Your task to perform on an android device: Search for Italian restaurants on Maps Image 0: 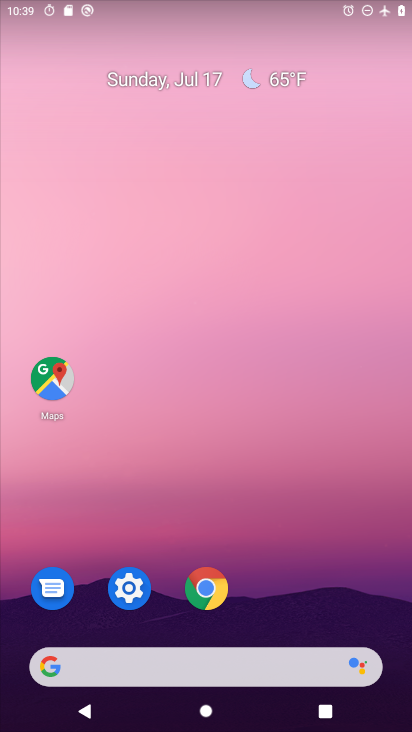
Step 0: drag from (249, 326) to (231, 211)
Your task to perform on an android device: Search for Italian restaurants on Maps Image 1: 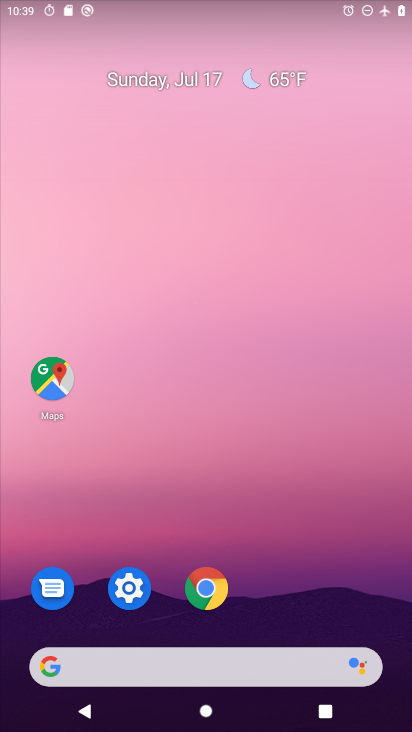
Step 1: drag from (263, 675) to (202, 429)
Your task to perform on an android device: Search for Italian restaurants on Maps Image 2: 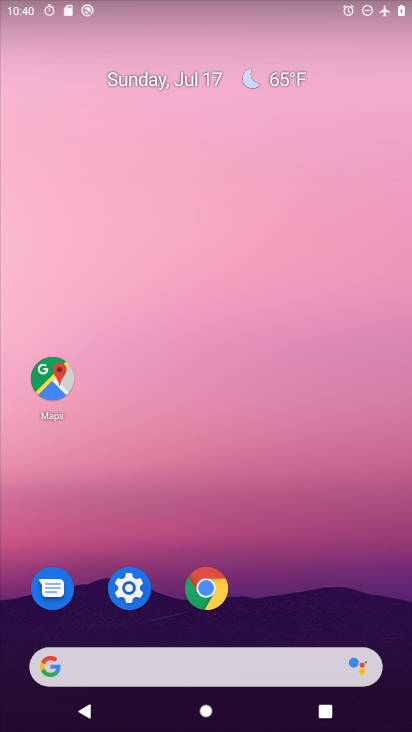
Step 2: drag from (223, 543) to (189, 292)
Your task to perform on an android device: Search for Italian restaurants on Maps Image 3: 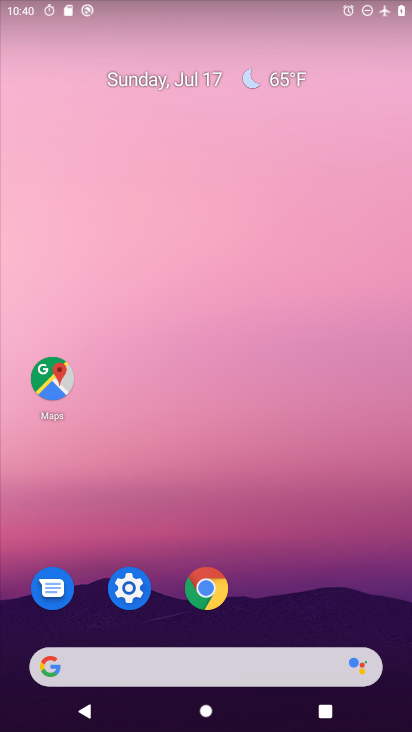
Step 3: drag from (218, 676) to (217, 278)
Your task to perform on an android device: Search for Italian restaurants on Maps Image 4: 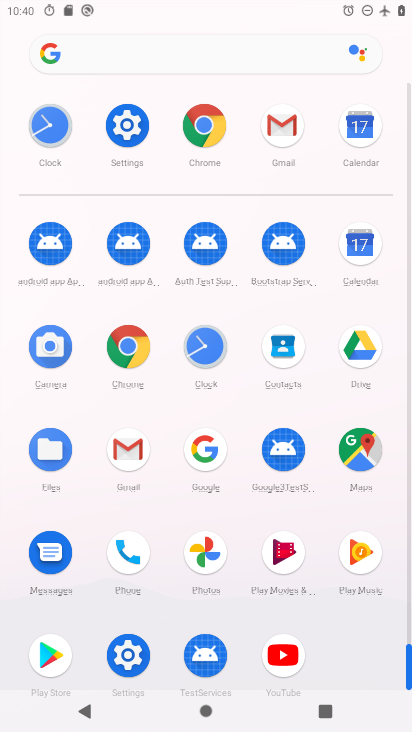
Step 4: click (348, 440)
Your task to perform on an android device: Search for Italian restaurants on Maps Image 5: 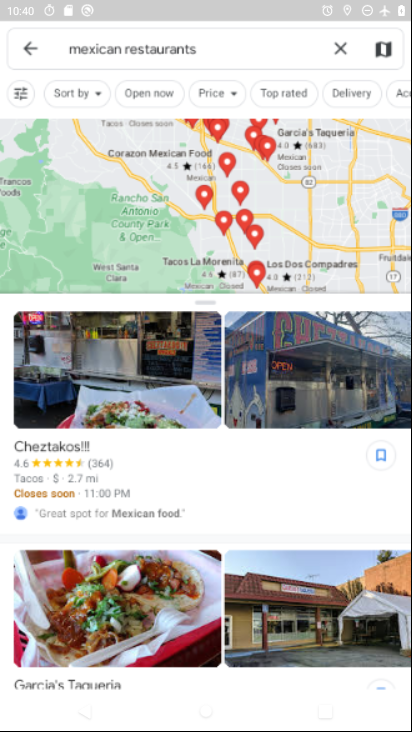
Step 5: click (182, 49)
Your task to perform on an android device: Search for Italian restaurants on Maps Image 6: 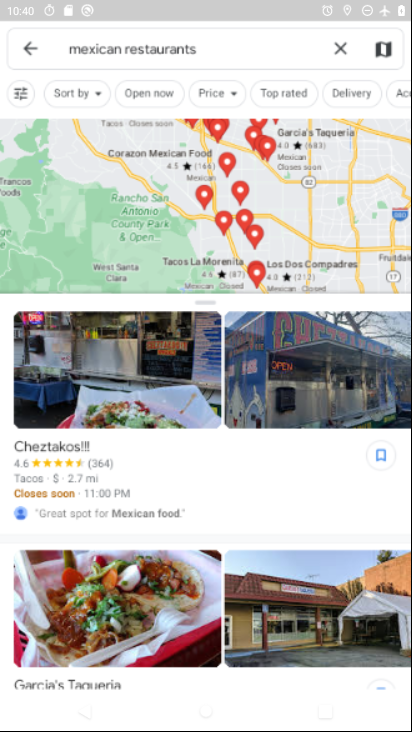
Step 6: click (224, 52)
Your task to perform on an android device: Search for Italian restaurants on Maps Image 7: 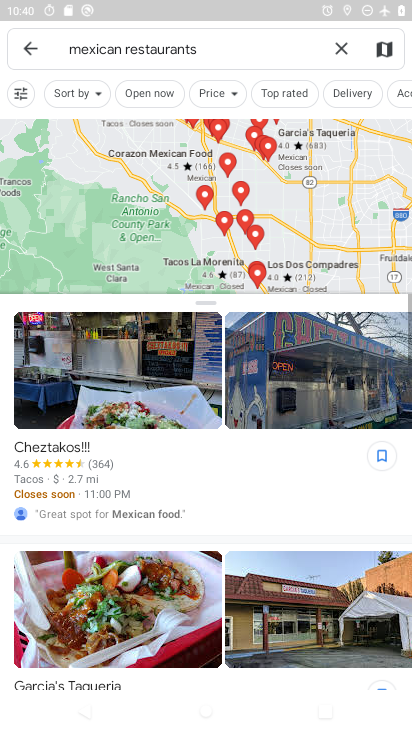
Step 7: click (222, 41)
Your task to perform on an android device: Search for Italian restaurants on Maps Image 8: 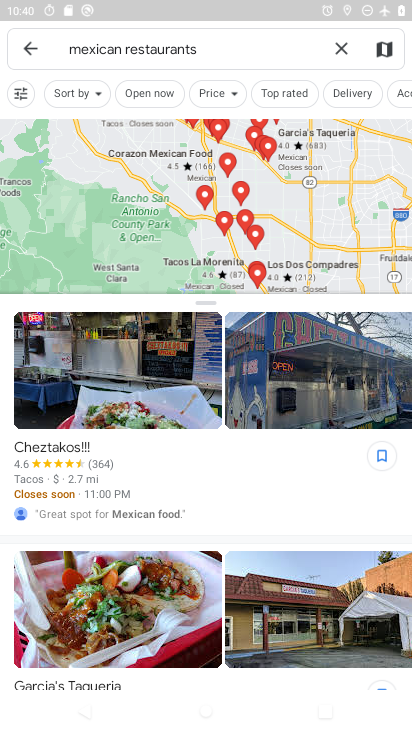
Step 8: click (223, 53)
Your task to perform on an android device: Search for Italian restaurants on Maps Image 9: 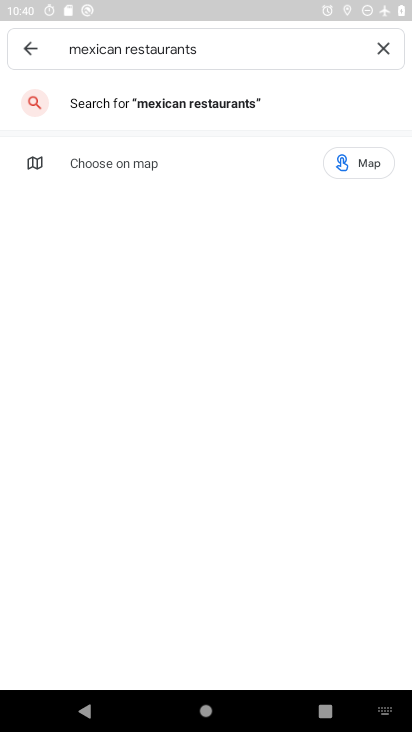
Step 9: click (195, 46)
Your task to perform on an android device: Search for Italian restaurants on Maps Image 10: 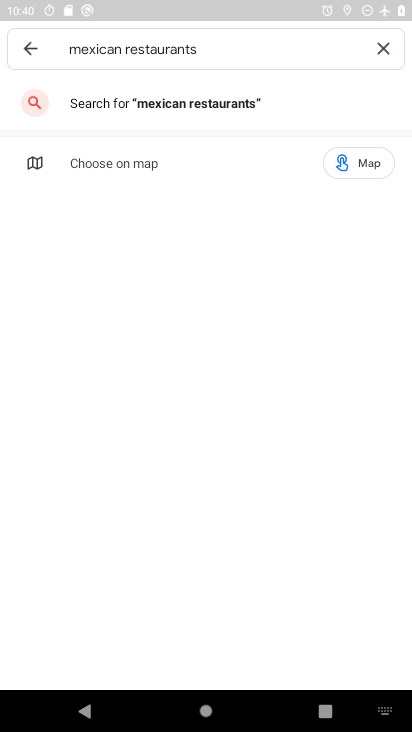
Step 10: click (206, 40)
Your task to perform on an android device: Search for Italian restaurants on Maps Image 11: 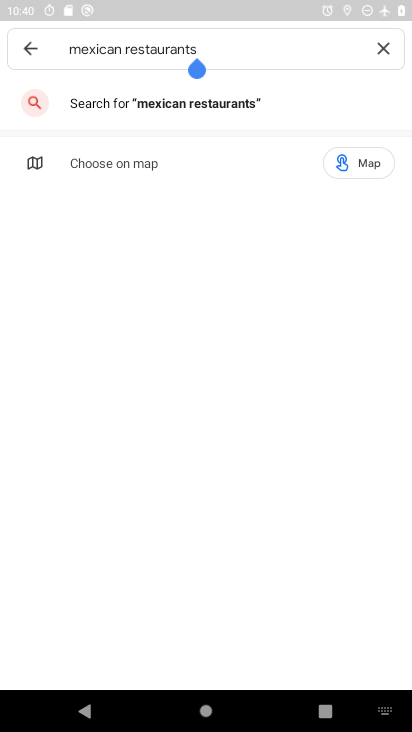
Step 11: click (122, 50)
Your task to perform on an android device: Search for Italian restaurants on Maps Image 12: 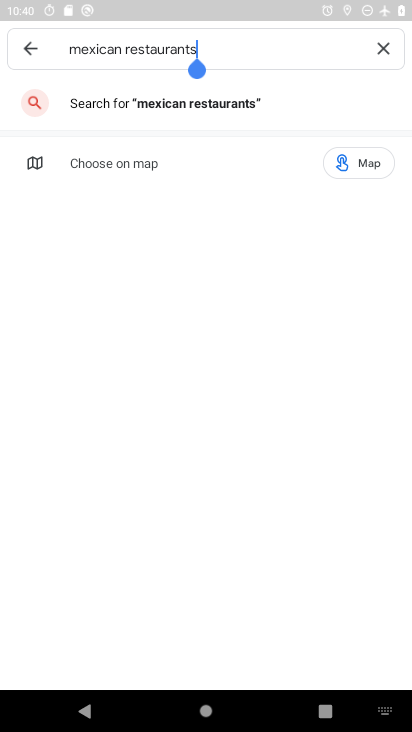
Step 12: click (120, 41)
Your task to perform on an android device: Search for Italian restaurants on Maps Image 13: 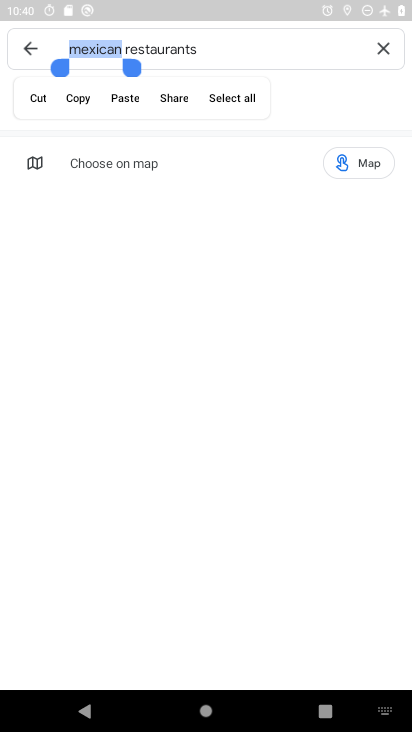
Step 13: click (376, 45)
Your task to perform on an android device: Search for Italian restaurants on Maps Image 14: 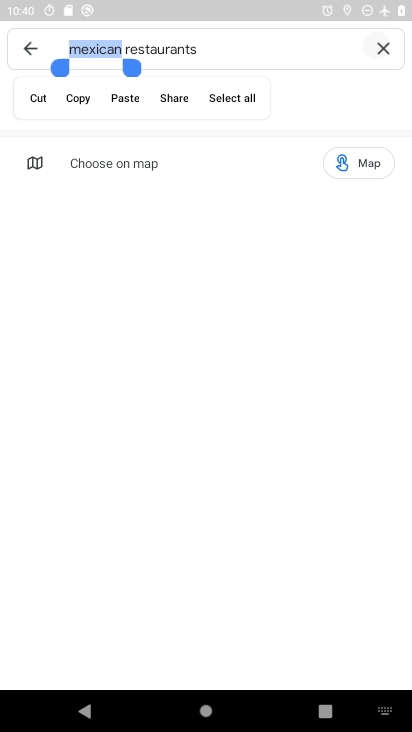
Step 14: click (376, 45)
Your task to perform on an android device: Search for Italian restaurants on Maps Image 15: 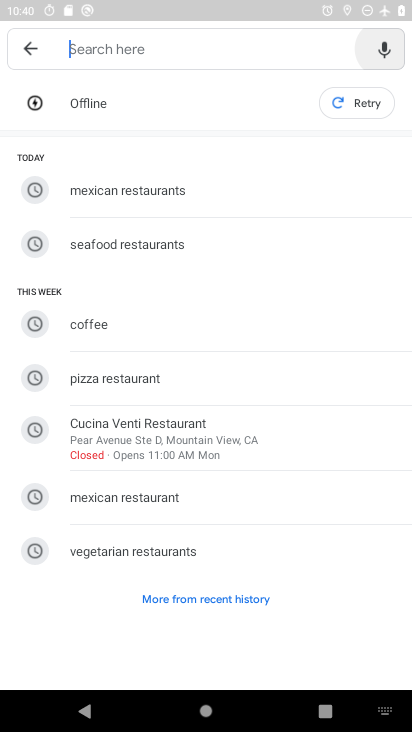
Step 15: click (377, 47)
Your task to perform on an android device: Search for Italian restaurants on Maps Image 16: 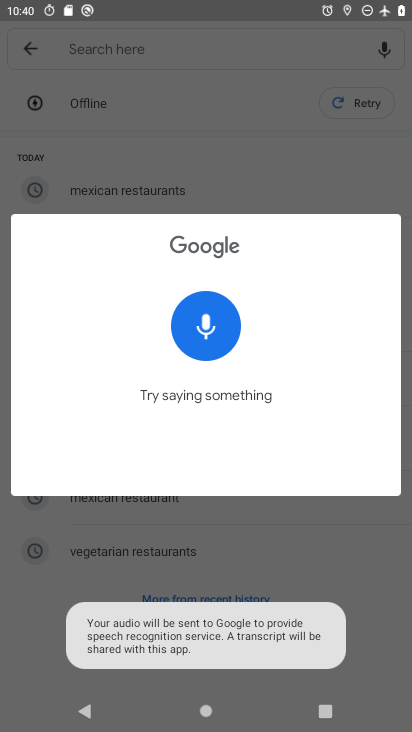
Step 16: click (241, 148)
Your task to perform on an android device: Search for Italian restaurants on Maps Image 17: 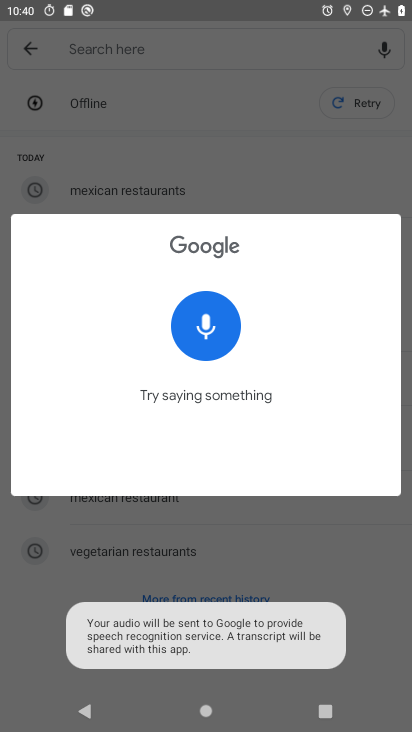
Step 17: click (241, 148)
Your task to perform on an android device: Search for Italian restaurants on Maps Image 18: 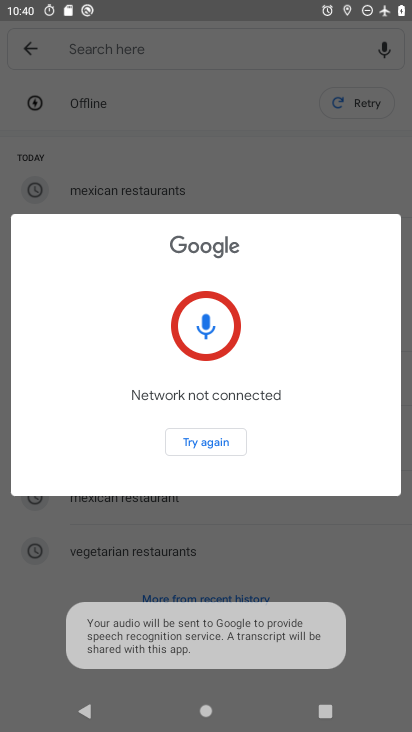
Step 18: click (241, 152)
Your task to perform on an android device: Search for Italian restaurants on Maps Image 19: 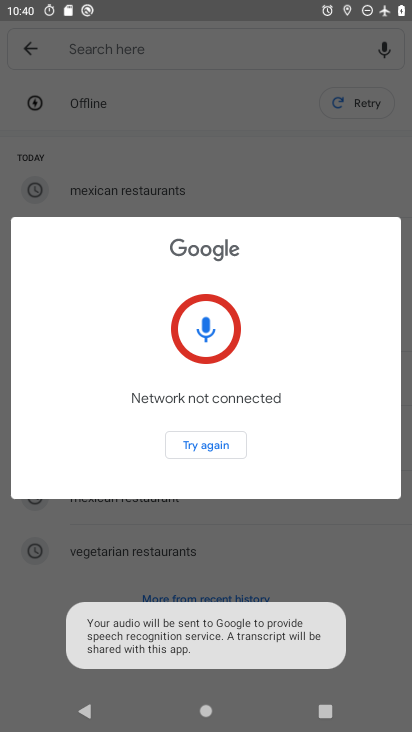
Step 19: click (245, 153)
Your task to perform on an android device: Search for Italian restaurants on Maps Image 20: 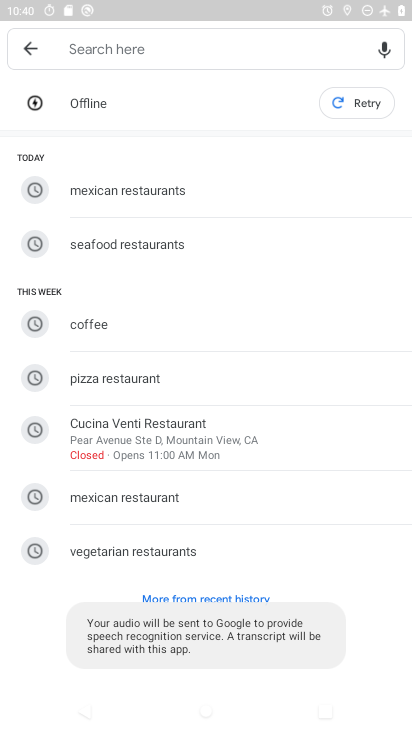
Step 20: click (246, 153)
Your task to perform on an android device: Search for Italian restaurants on Maps Image 21: 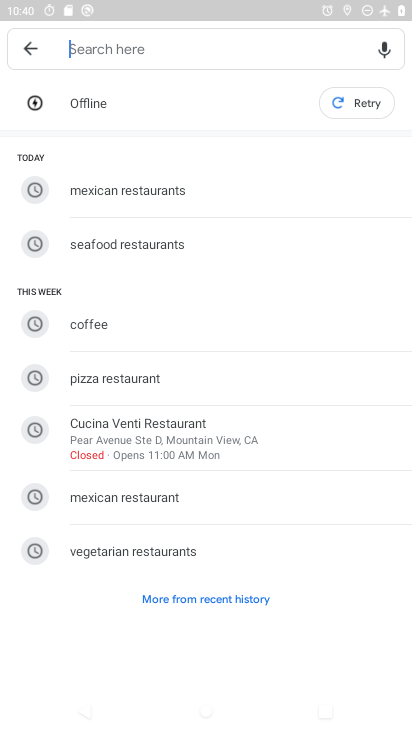
Step 21: type "italian restaurants"
Your task to perform on an android device: Search for Italian restaurants on Maps Image 22: 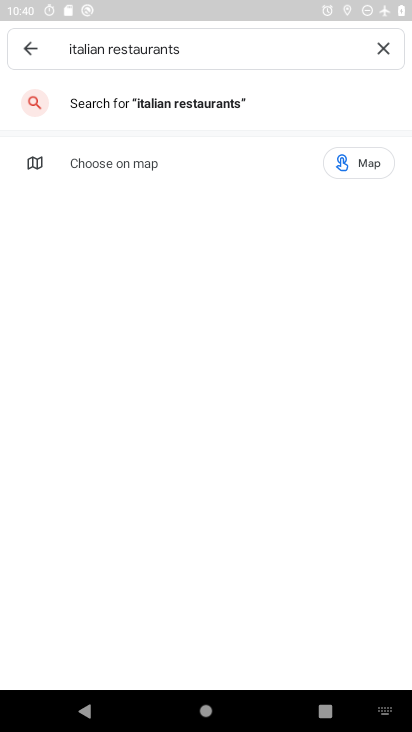
Step 22: click (203, 96)
Your task to perform on an android device: Search for Italian restaurants on Maps Image 23: 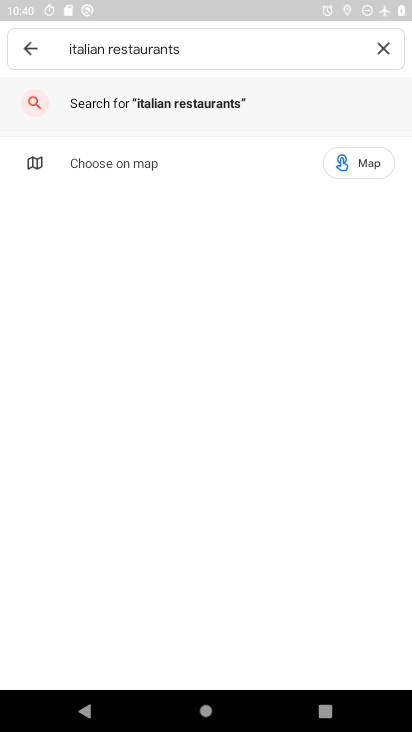
Step 23: click (205, 91)
Your task to perform on an android device: Search for Italian restaurants on Maps Image 24: 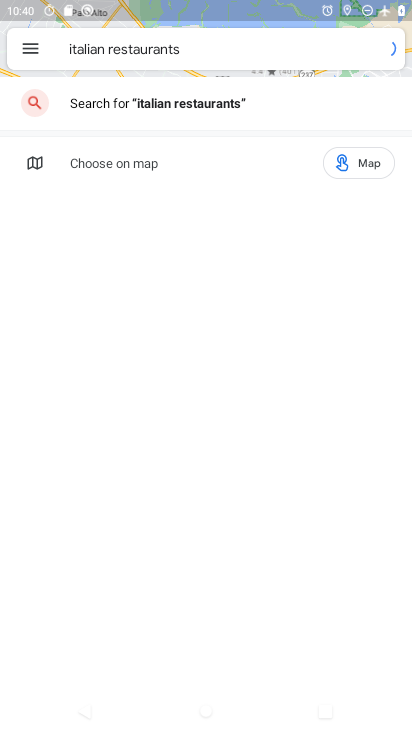
Step 24: click (206, 90)
Your task to perform on an android device: Search for Italian restaurants on Maps Image 25: 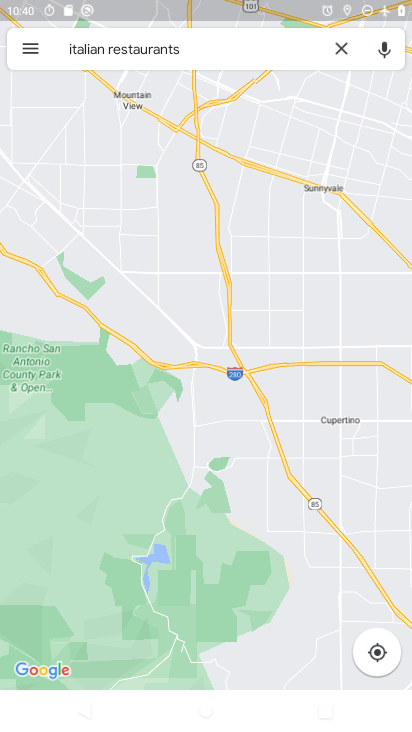
Step 25: click (206, 90)
Your task to perform on an android device: Search for Italian restaurants on Maps Image 26: 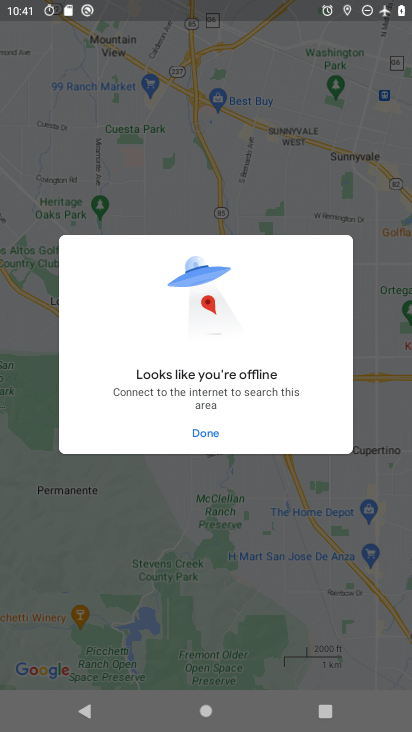
Step 26: task complete